Your task to perform on an android device: turn on priority inbox in the gmail app Image 0: 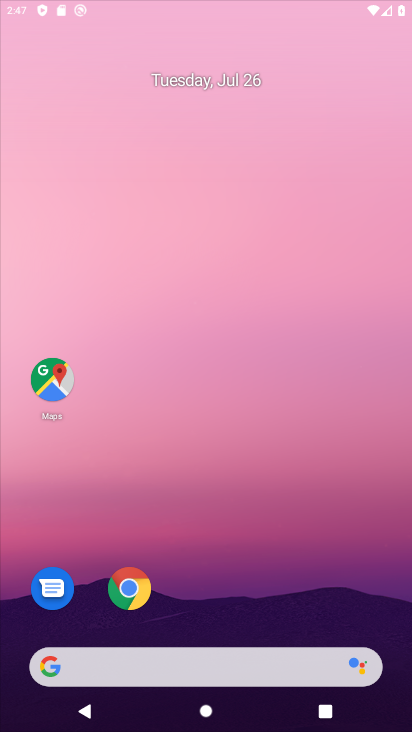
Step 0: click (162, 49)
Your task to perform on an android device: turn on priority inbox in the gmail app Image 1: 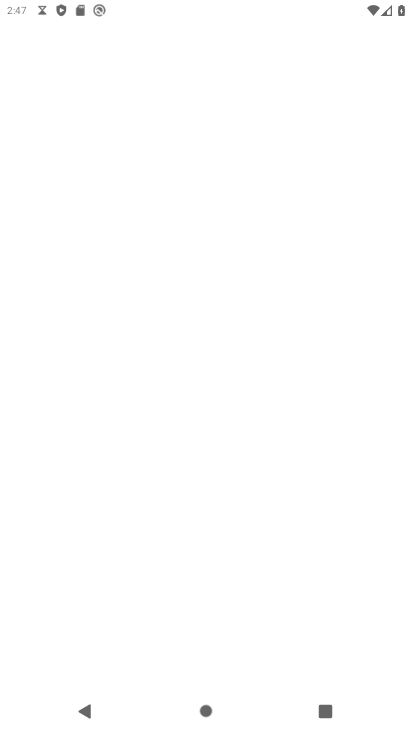
Step 1: press home button
Your task to perform on an android device: turn on priority inbox in the gmail app Image 2: 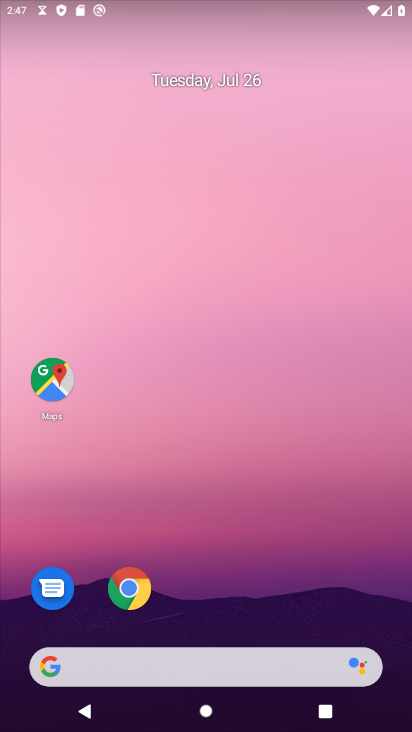
Step 2: drag from (218, 628) to (202, 91)
Your task to perform on an android device: turn on priority inbox in the gmail app Image 3: 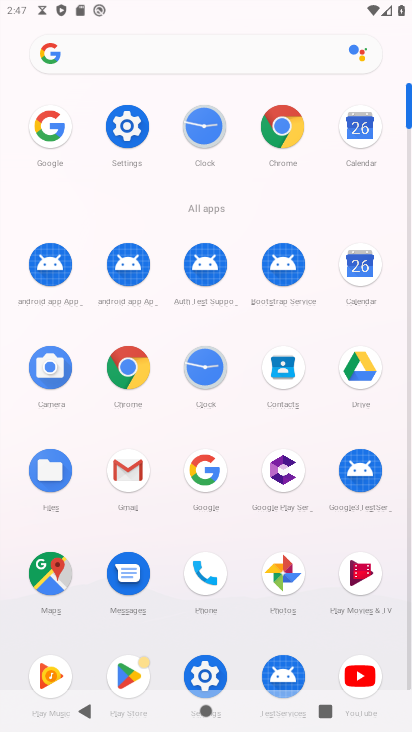
Step 3: click (133, 478)
Your task to perform on an android device: turn on priority inbox in the gmail app Image 4: 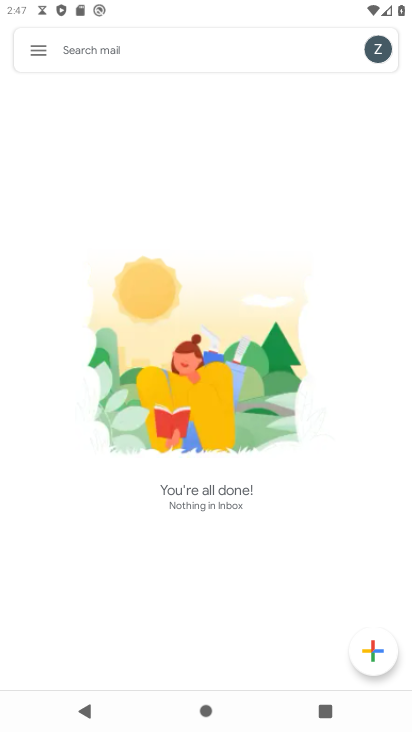
Step 4: click (52, 54)
Your task to perform on an android device: turn on priority inbox in the gmail app Image 5: 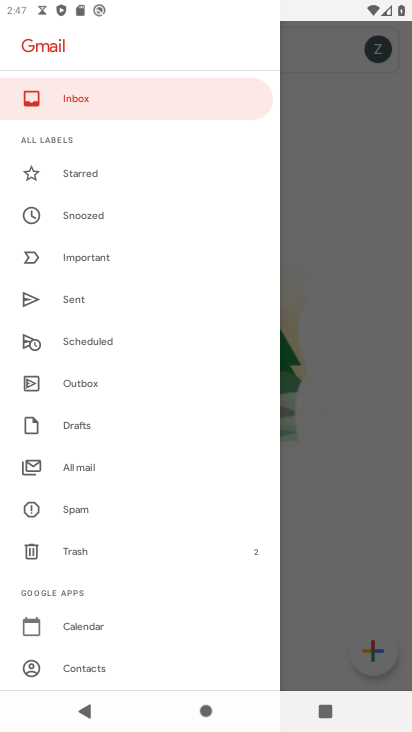
Step 5: drag from (160, 590) to (74, 159)
Your task to perform on an android device: turn on priority inbox in the gmail app Image 6: 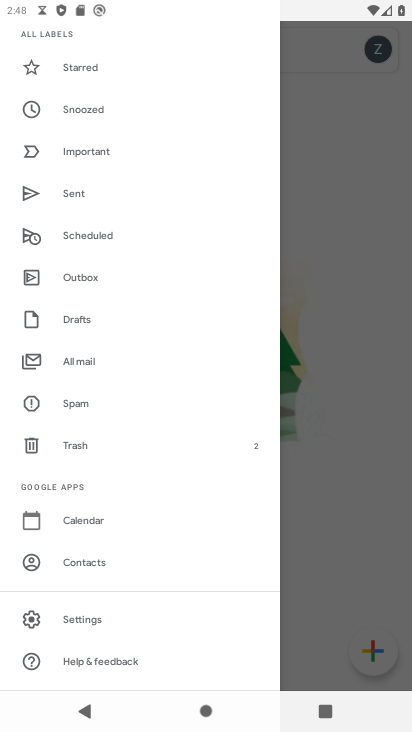
Step 6: click (65, 622)
Your task to perform on an android device: turn on priority inbox in the gmail app Image 7: 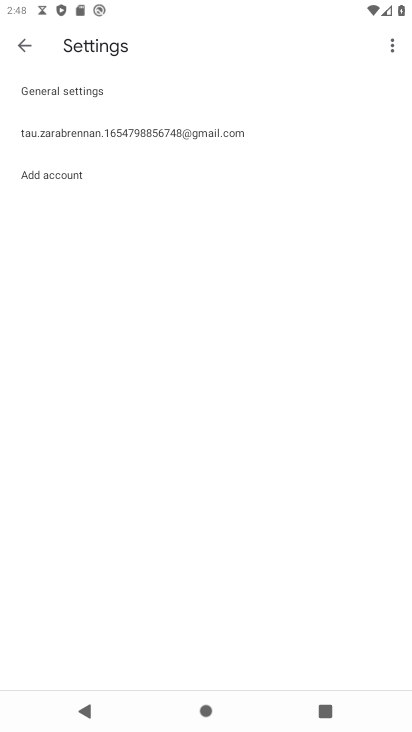
Step 7: click (69, 130)
Your task to perform on an android device: turn on priority inbox in the gmail app Image 8: 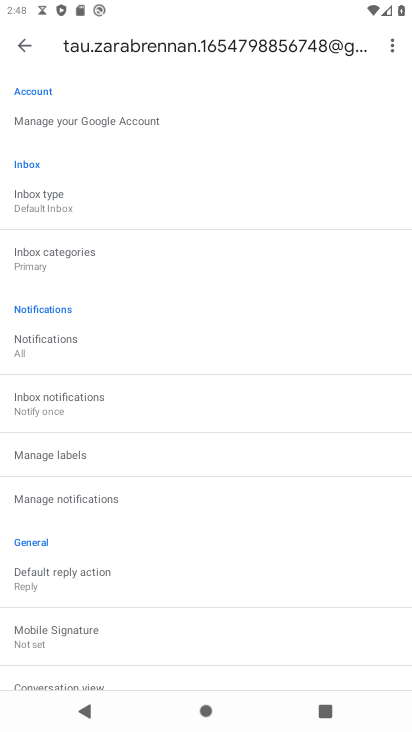
Step 8: click (26, 205)
Your task to perform on an android device: turn on priority inbox in the gmail app Image 9: 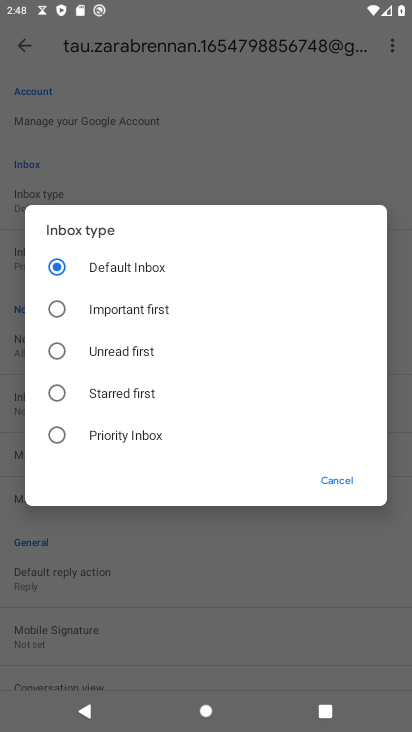
Step 9: click (142, 427)
Your task to perform on an android device: turn on priority inbox in the gmail app Image 10: 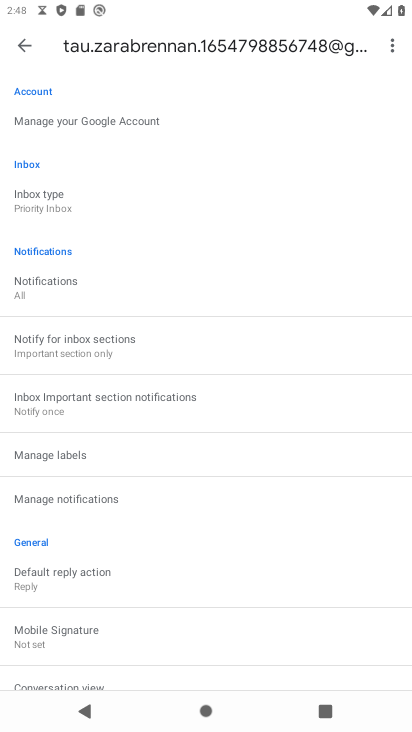
Step 10: task complete